Your task to perform on an android device: open wifi settings Image 0: 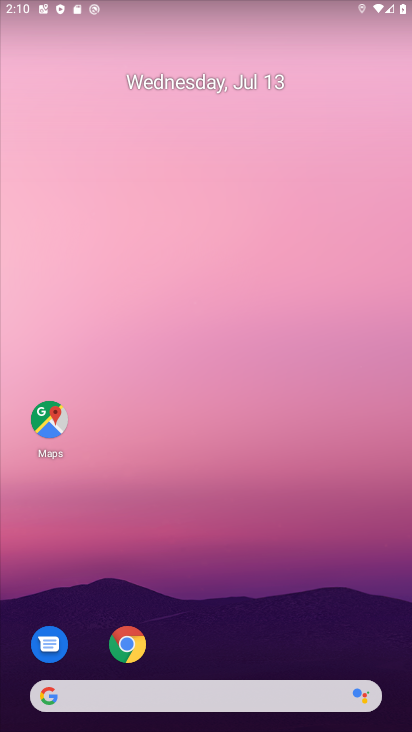
Step 0: drag from (58, 7) to (147, 704)
Your task to perform on an android device: open wifi settings Image 1: 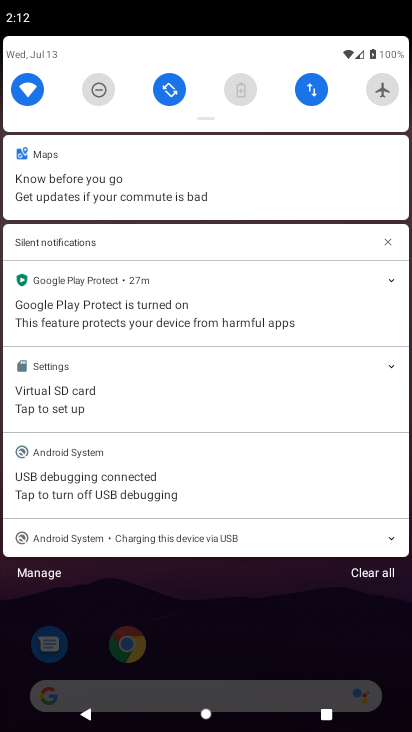
Step 1: click (27, 91)
Your task to perform on an android device: open wifi settings Image 2: 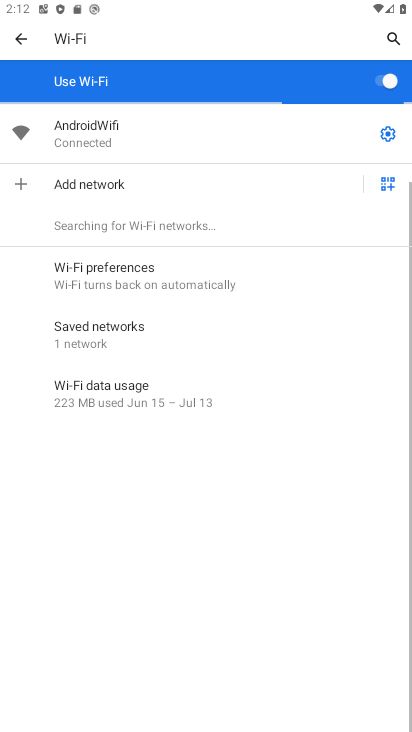
Step 2: task complete